Your task to perform on an android device: add a contact in the contacts app Image 0: 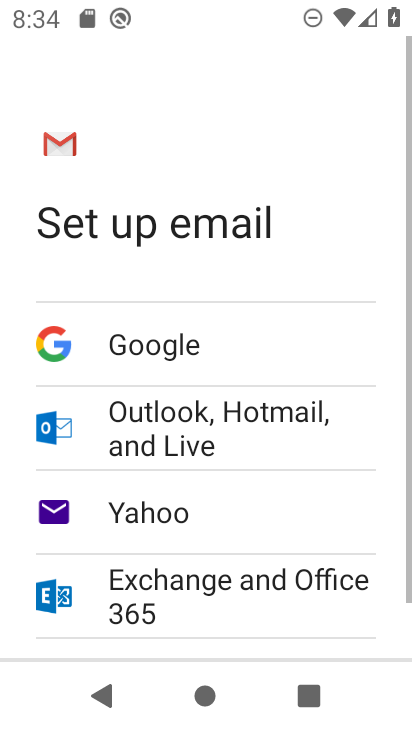
Step 0: press home button
Your task to perform on an android device: add a contact in the contacts app Image 1: 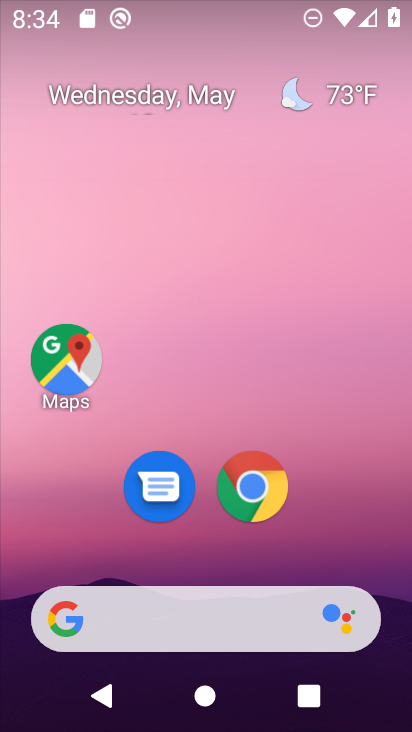
Step 1: drag from (400, 631) to (326, 35)
Your task to perform on an android device: add a contact in the contacts app Image 2: 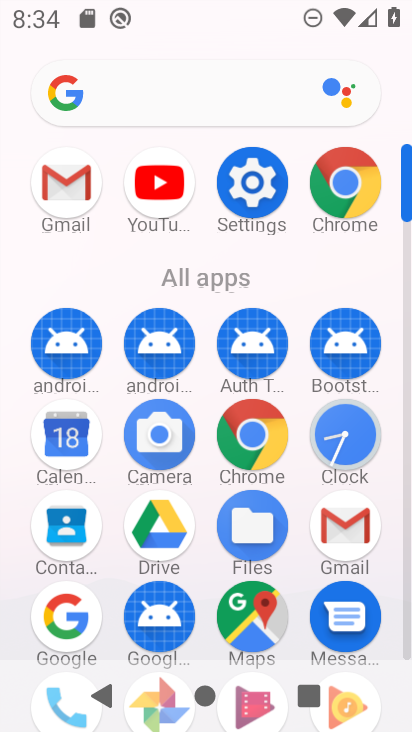
Step 2: click (407, 643)
Your task to perform on an android device: add a contact in the contacts app Image 3: 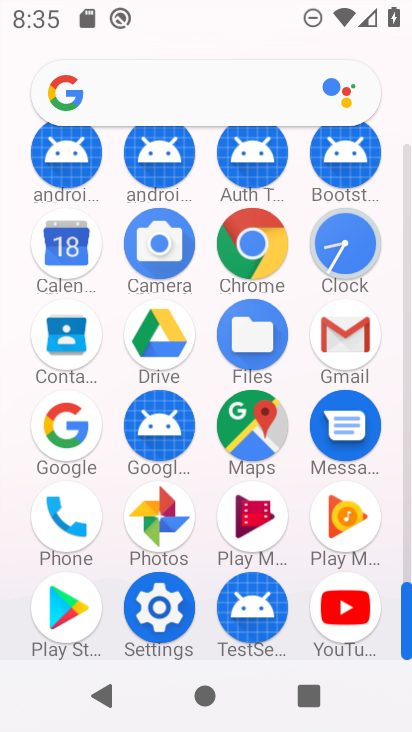
Step 3: click (63, 341)
Your task to perform on an android device: add a contact in the contacts app Image 4: 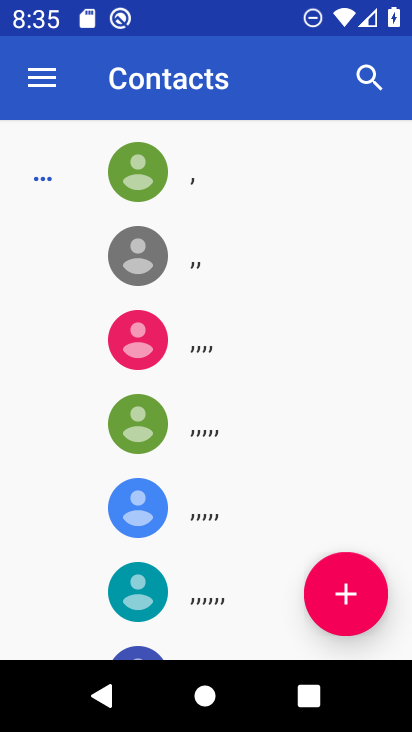
Step 4: click (348, 595)
Your task to perform on an android device: add a contact in the contacts app Image 5: 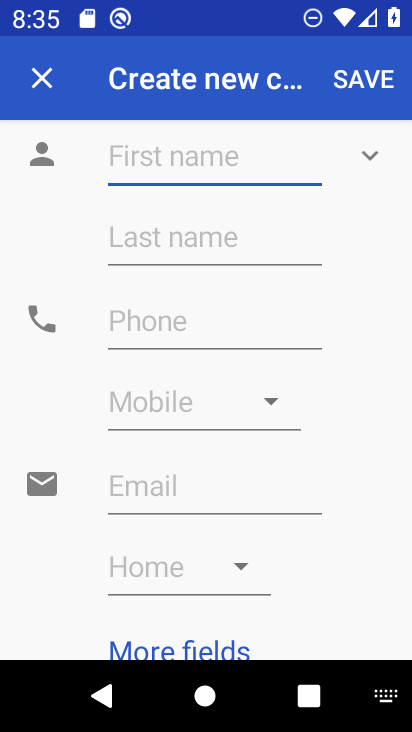
Step 5: type "uyykjkgfd"
Your task to perform on an android device: add a contact in the contacts app Image 6: 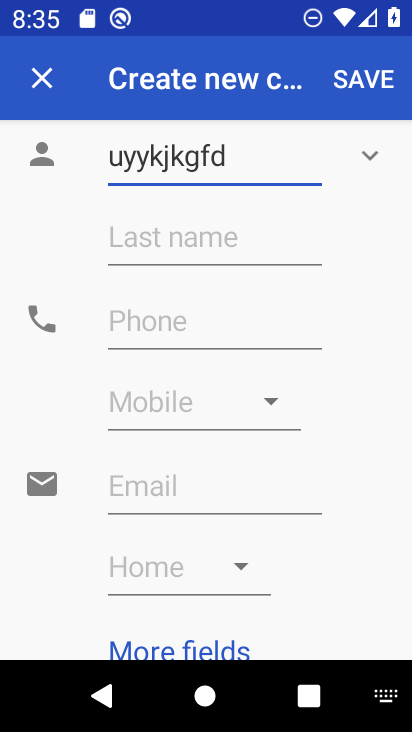
Step 6: click (164, 330)
Your task to perform on an android device: add a contact in the contacts app Image 7: 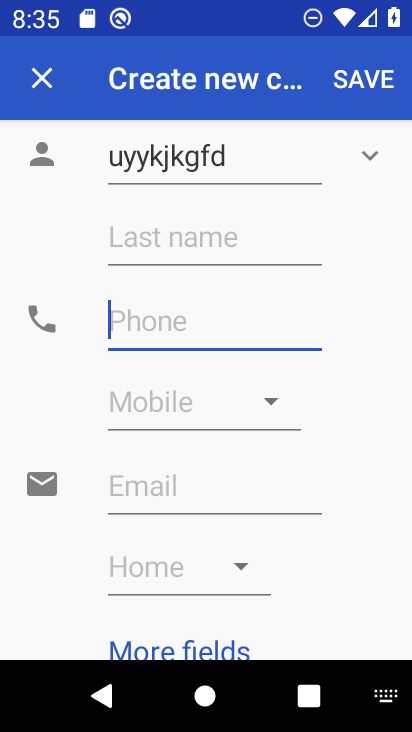
Step 7: type "098356790"
Your task to perform on an android device: add a contact in the contacts app Image 8: 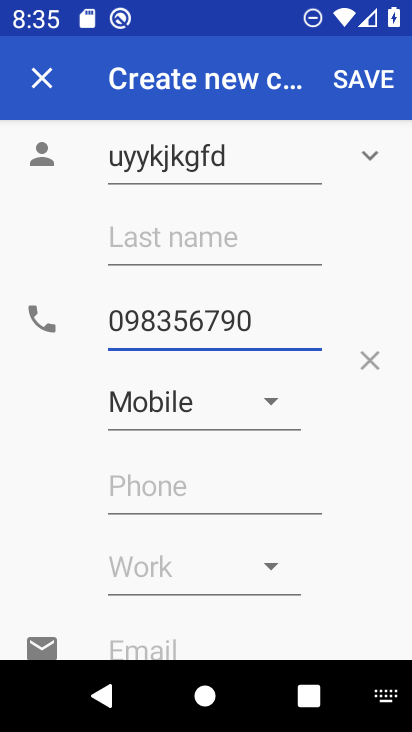
Step 8: click (272, 404)
Your task to perform on an android device: add a contact in the contacts app Image 9: 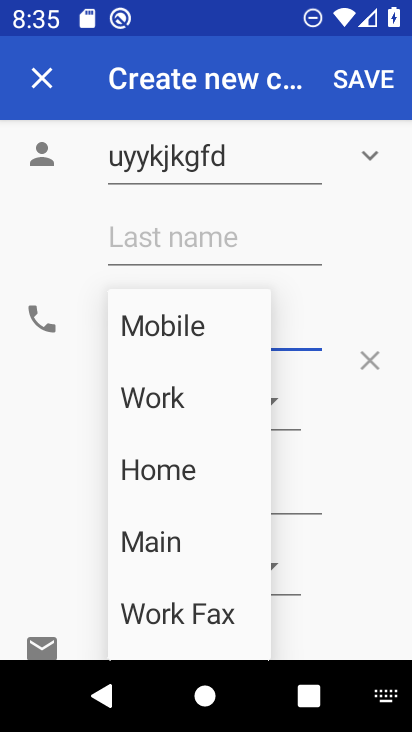
Step 9: click (166, 399)
Your task to perform on an android device: add a contact in the contacts app Image 10: 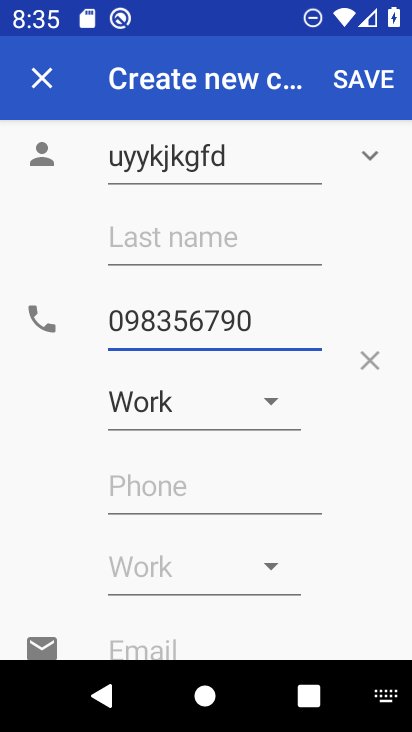
Step 10: click (372, 83)
Your task to perform on an android device: add a contact in the contacts app Image 11: 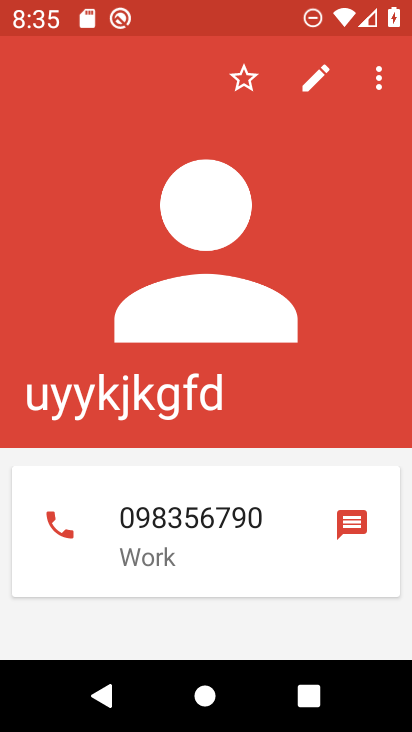
Step 11: task complete